Your task to perform on an android device: turn off improve location accuracy Image 0: 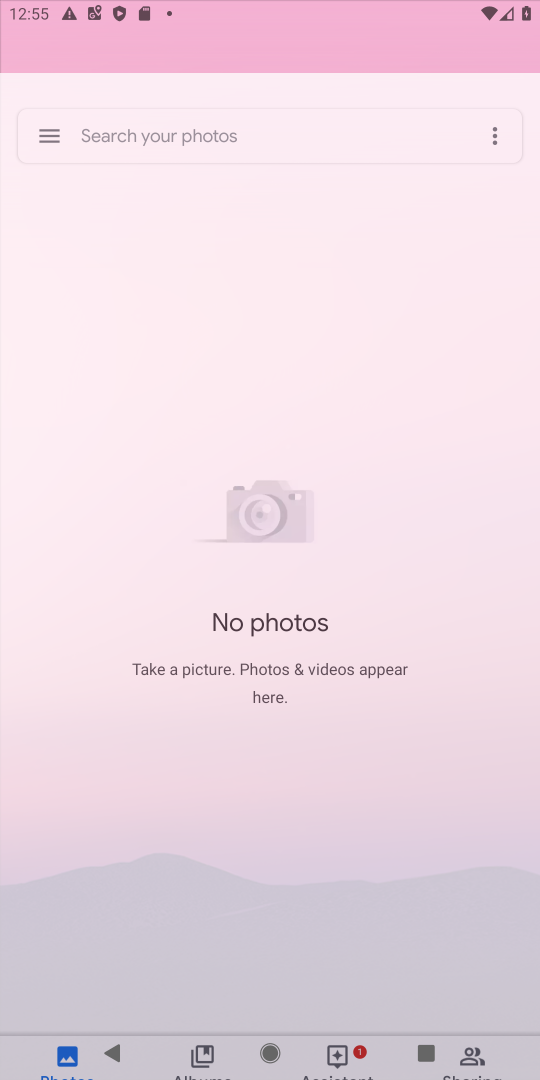
Step 0: press home button
Your task to perform on an android device: turn off improve location accuracy Image 1: 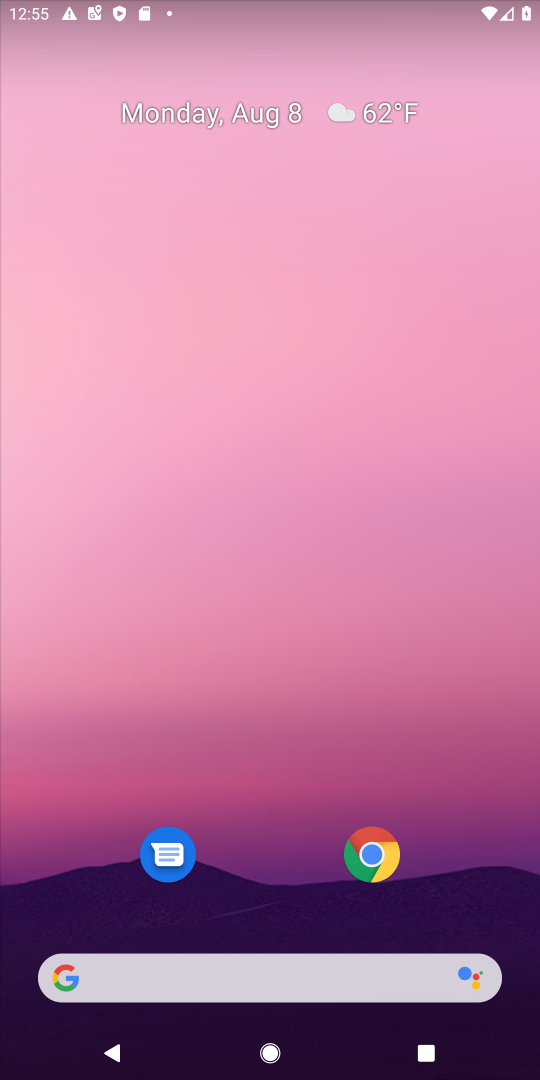
Step 1: drag from (265, 878) to (255, 36)
Your task to perform on an android device: turn off improve location accuracy Image 2: 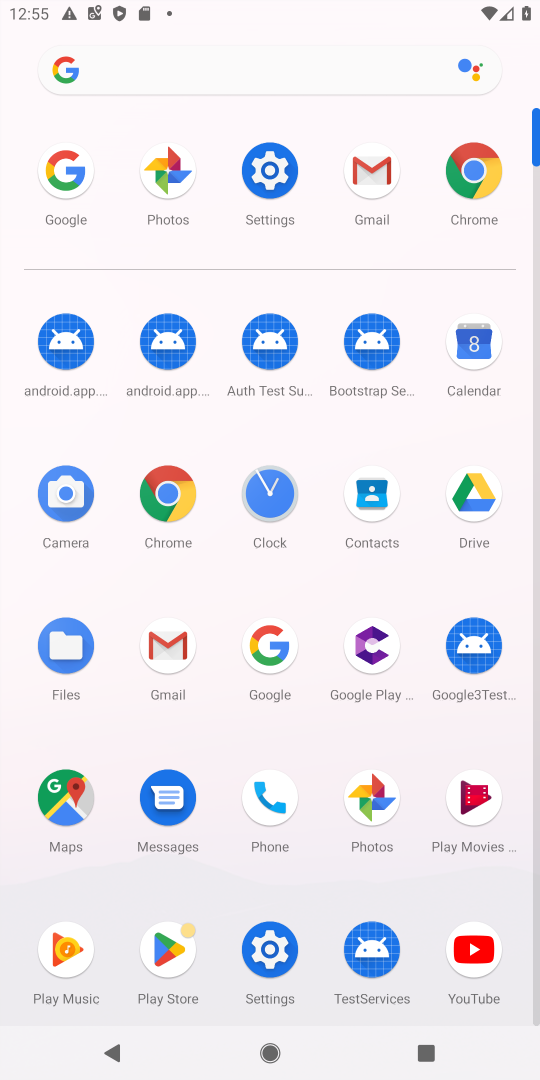
Step 2: click (282, 166)
Your task to perform on an android device: turn off improve location accuracy Image 3: 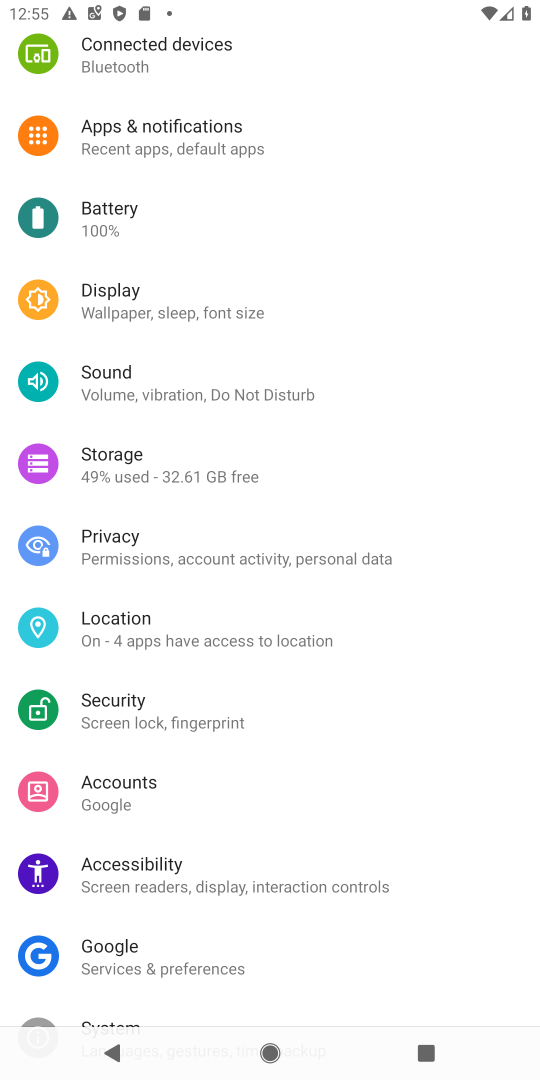
Step 3: click (120, 615)
Your task to perform on an android device: turn off improve location accuracy Image 4: 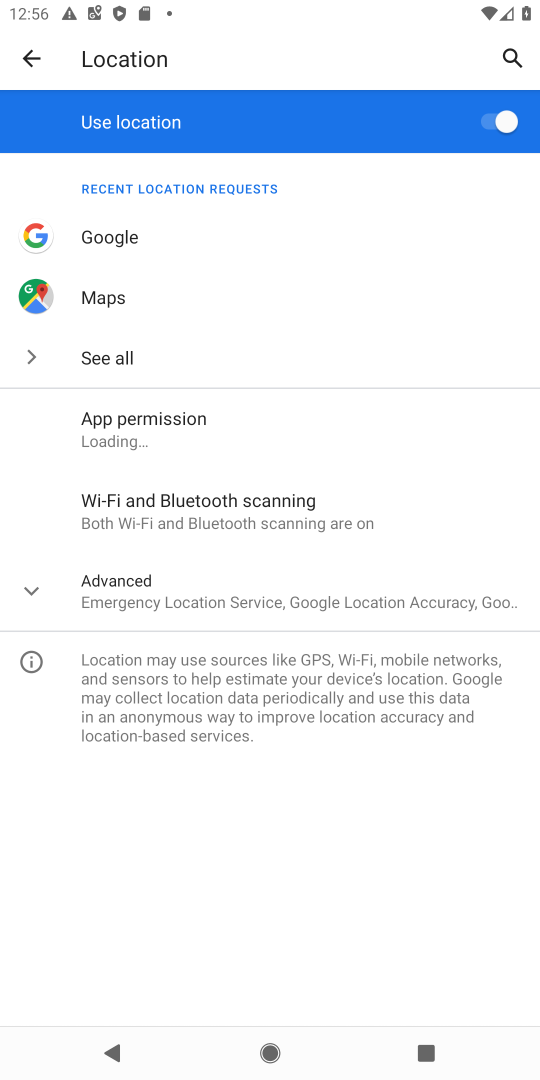
Step 4: click (28, 601)
Your task to perform on an android device: turn off improve location accuracy Image 5: 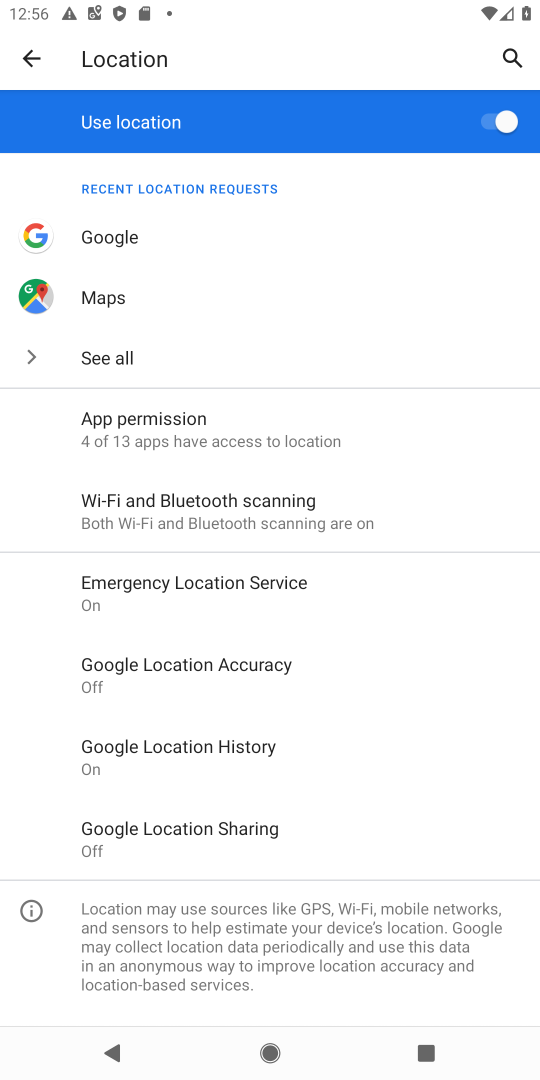
Step 5: click (165, 686)
Your task to perform on an android device: turn off improve location accuracy Image 6: 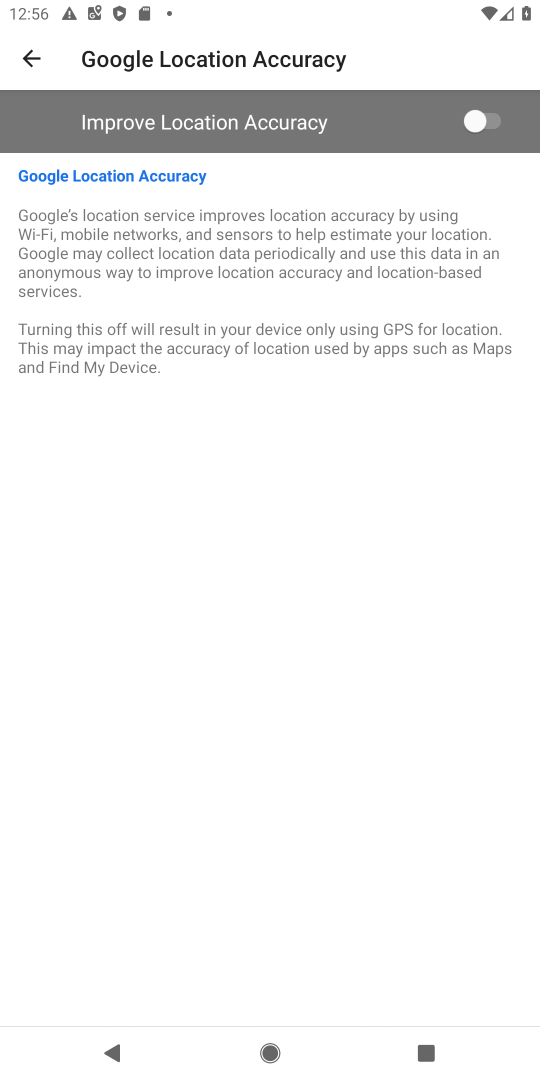
Step 6: task complete